Your task to perform on an android device: Go to calendar. Show me events next week Image 0: 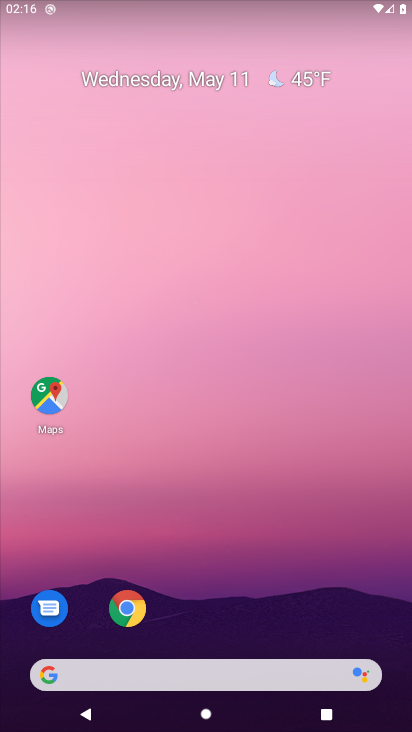
Step 0: drag from (210, 637) to (227, 7)
Your task to perform on an android device: Go to calendar. Show me events next week Image 1: 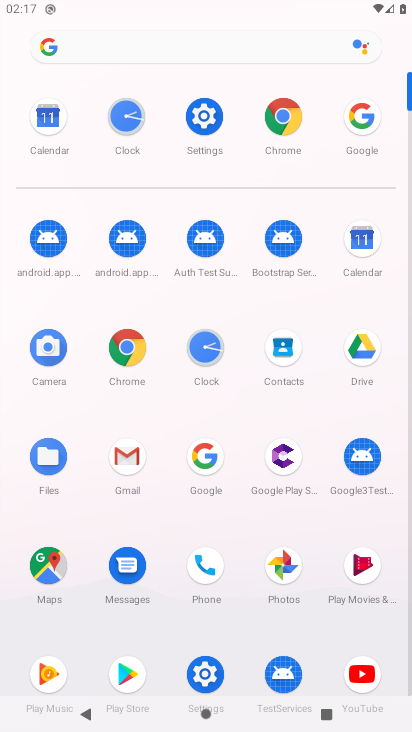
Step 1: click (359, 234)
Your task to perform on an android device: Go to calendar. Show me events next week Image 2: 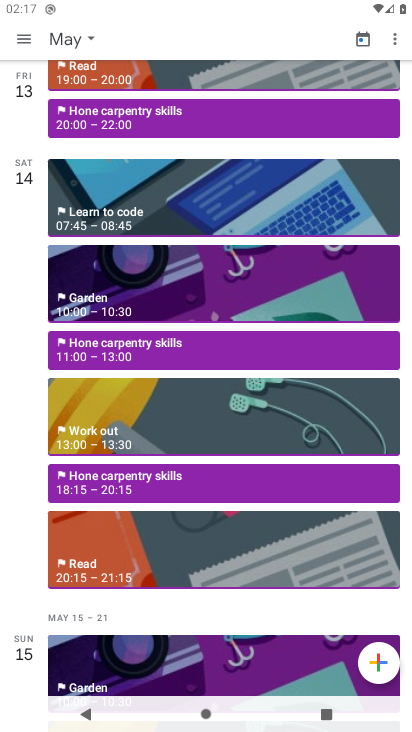
Step 2: click (19, 36)
Your task to perform on an android device: Go to calendar. Show me events next week Image 3: 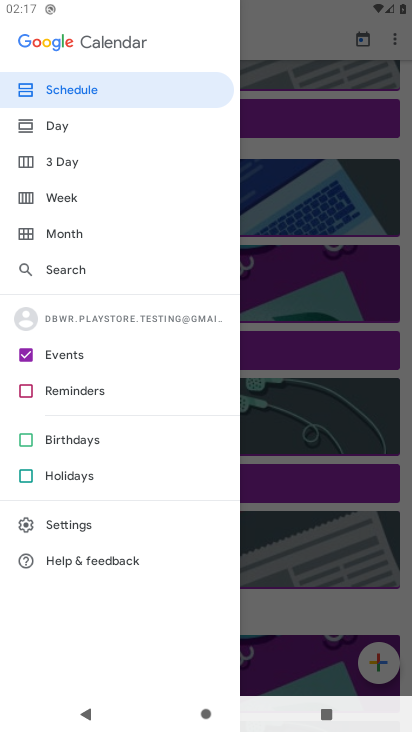
Step 3: click (83, 196)
Your task to perform on an android device: Go to calendar. Show me events next week Image 4: 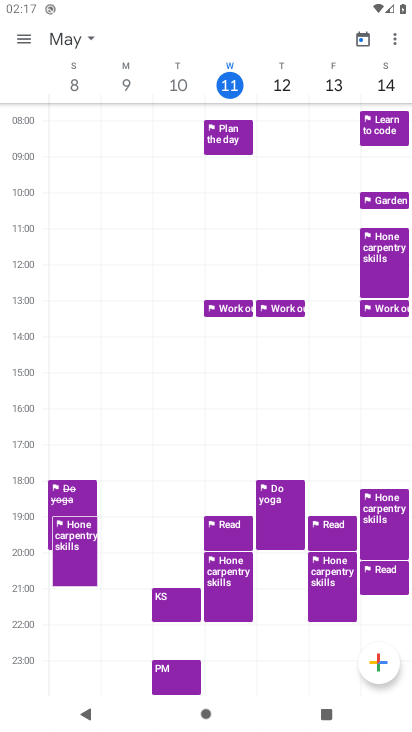
Step 4: click (18, 34)
Your task to perform on an android device: Go to calendar. Show me events next week Image 5: 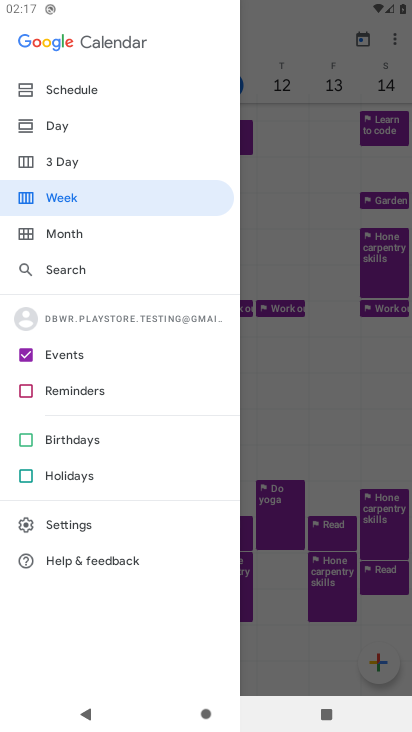
Step 5: click (58, 87)
Your task to perform on an android device: Go to calendar. Show me events next week Image 6: 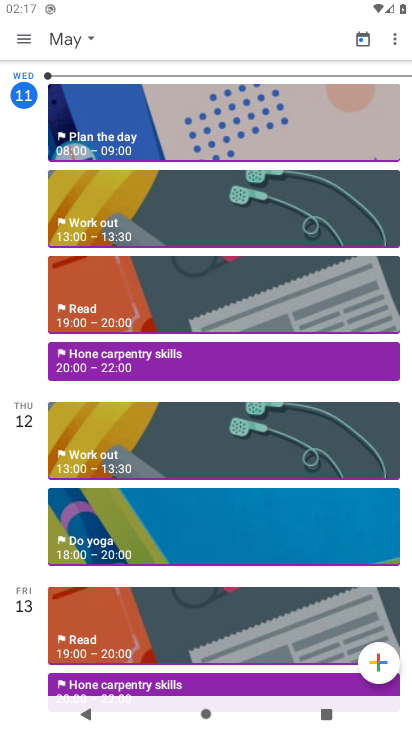
Step 6: task complete